Your task to perform on an android device: Open calendar and show me the third week of next month Image 0: 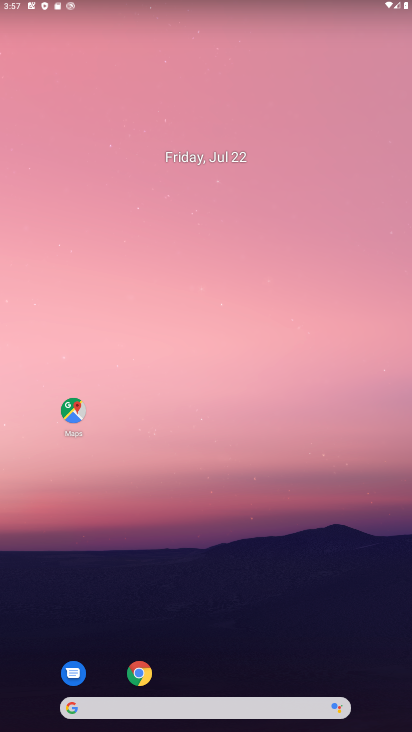
Step 0: drag from (199, 676) to (187, 10)
Your task to perform on an android device: Open calendar and show me the third week of next month Image 1: 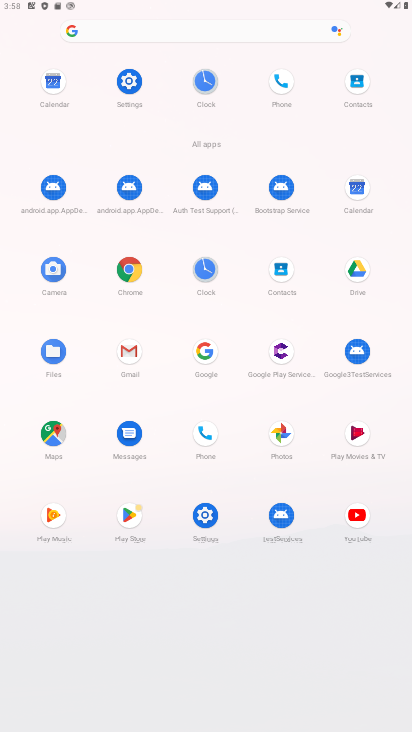
Step 1: click (354, 184)
Your task to perform on an android device: Open calendar and show me the third week of next month Image 2: 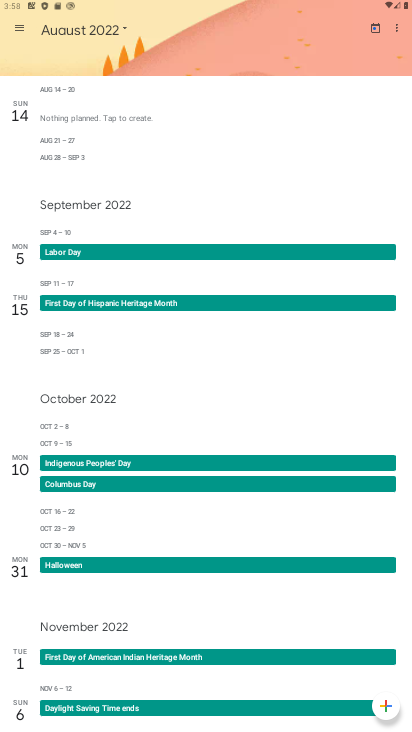
Step 2: task complete